Your task to perform on an android device: Open Google Chrome and open the bookmarks view Image 0: 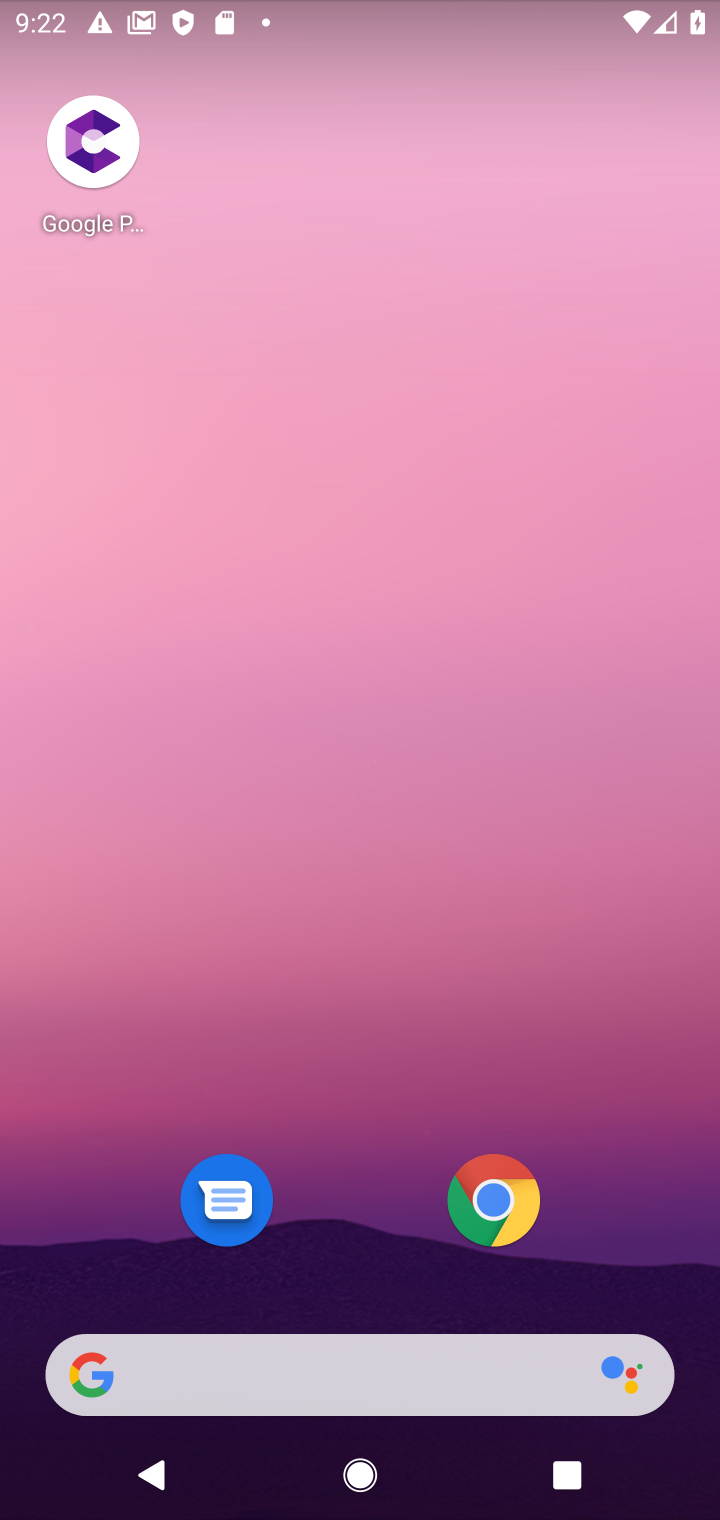
Step 0: click (460, 1171)
Your task to perform on an android device: Open Google Chrome and open the bookmarks view Image 1: 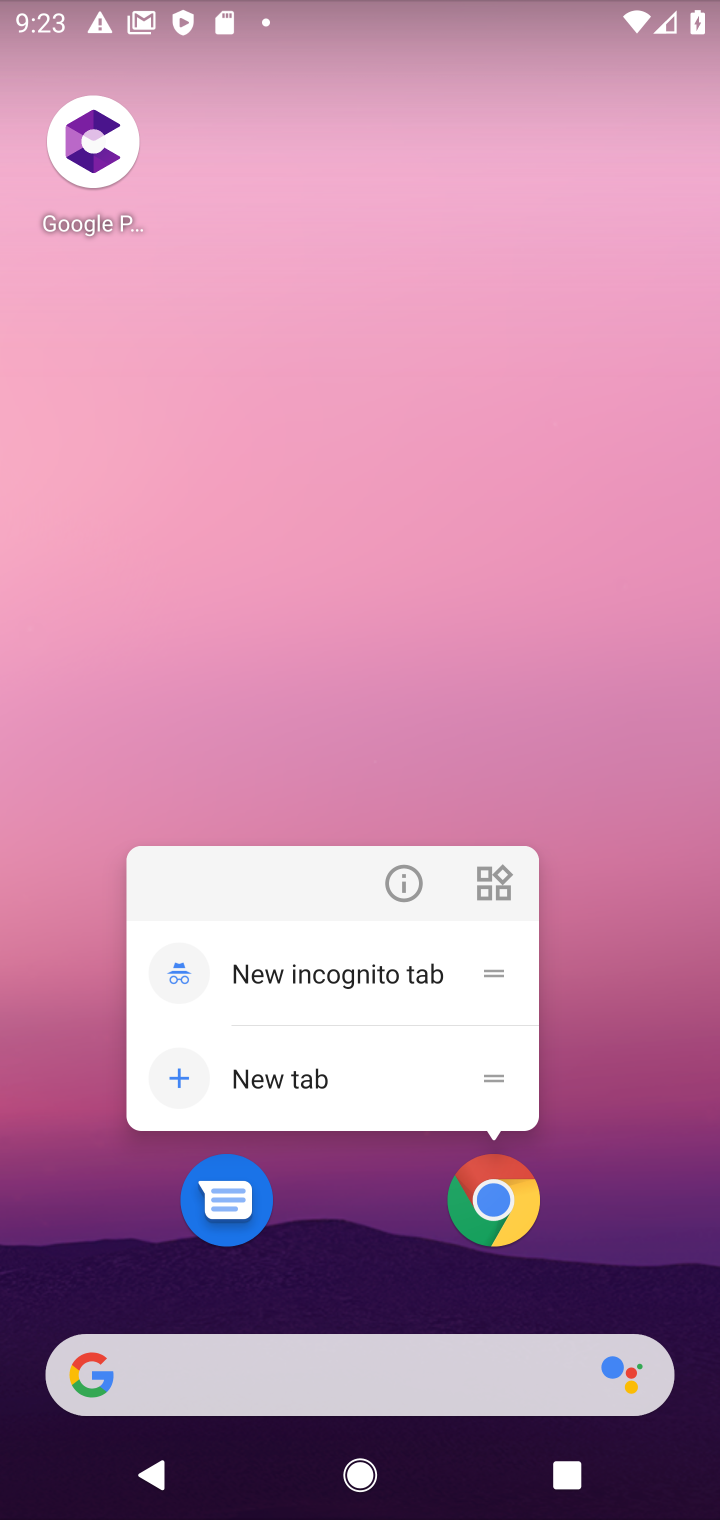
Step 1: click (489, 1209)
Your task to perform on an android device: Open Google Chrome and open the bookmarks view Image 2: 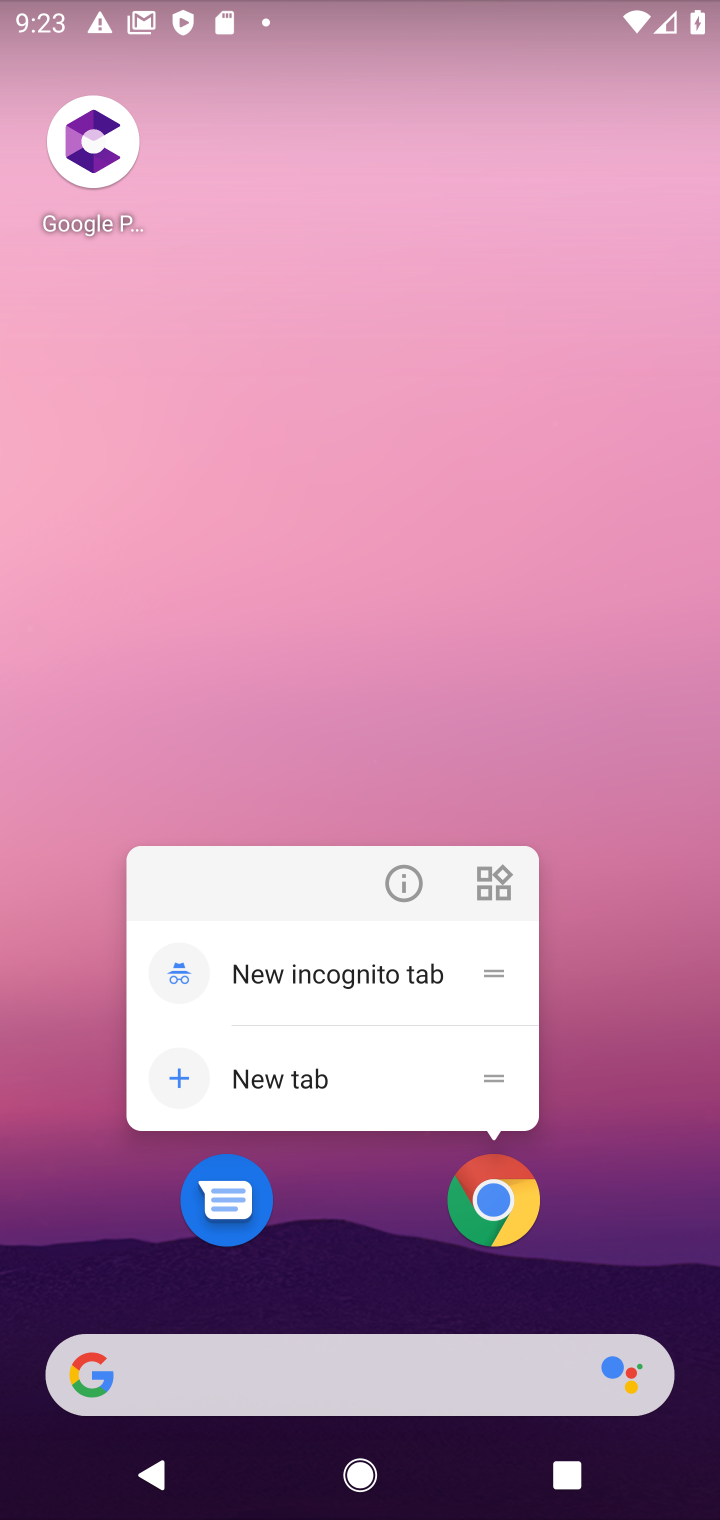
Step 2: click (485, 1192)
Your task to perform on an android device: Open Google Chrome and open the bookmarks view Image 3: 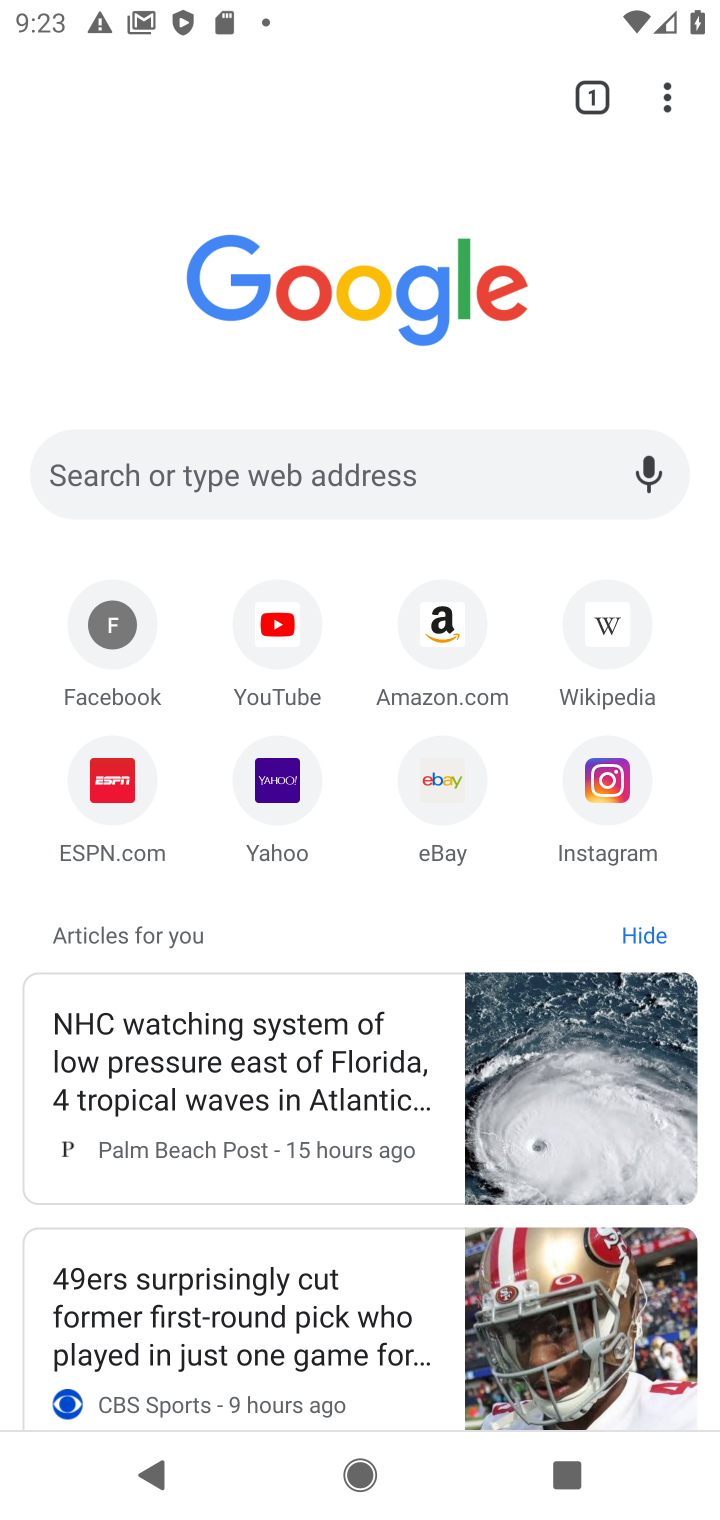
Step 3: click (679, 105)
Your task to perform on an android device: Open Google Chrome and open the bookmarks view Image 4: 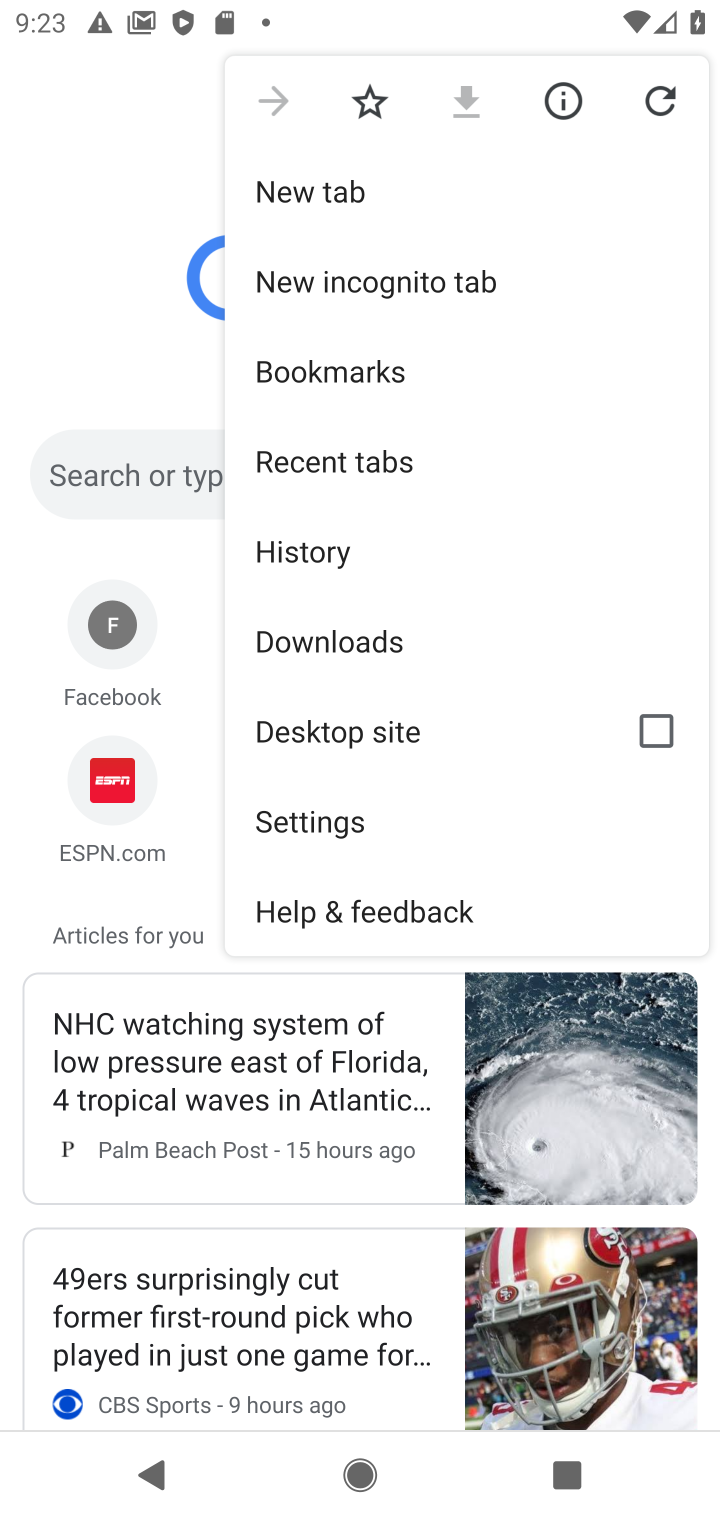
Step 4: click (320, 357)
Your task to perform on an android device: Open Google Chrome and open the bookmarks view Image 5: 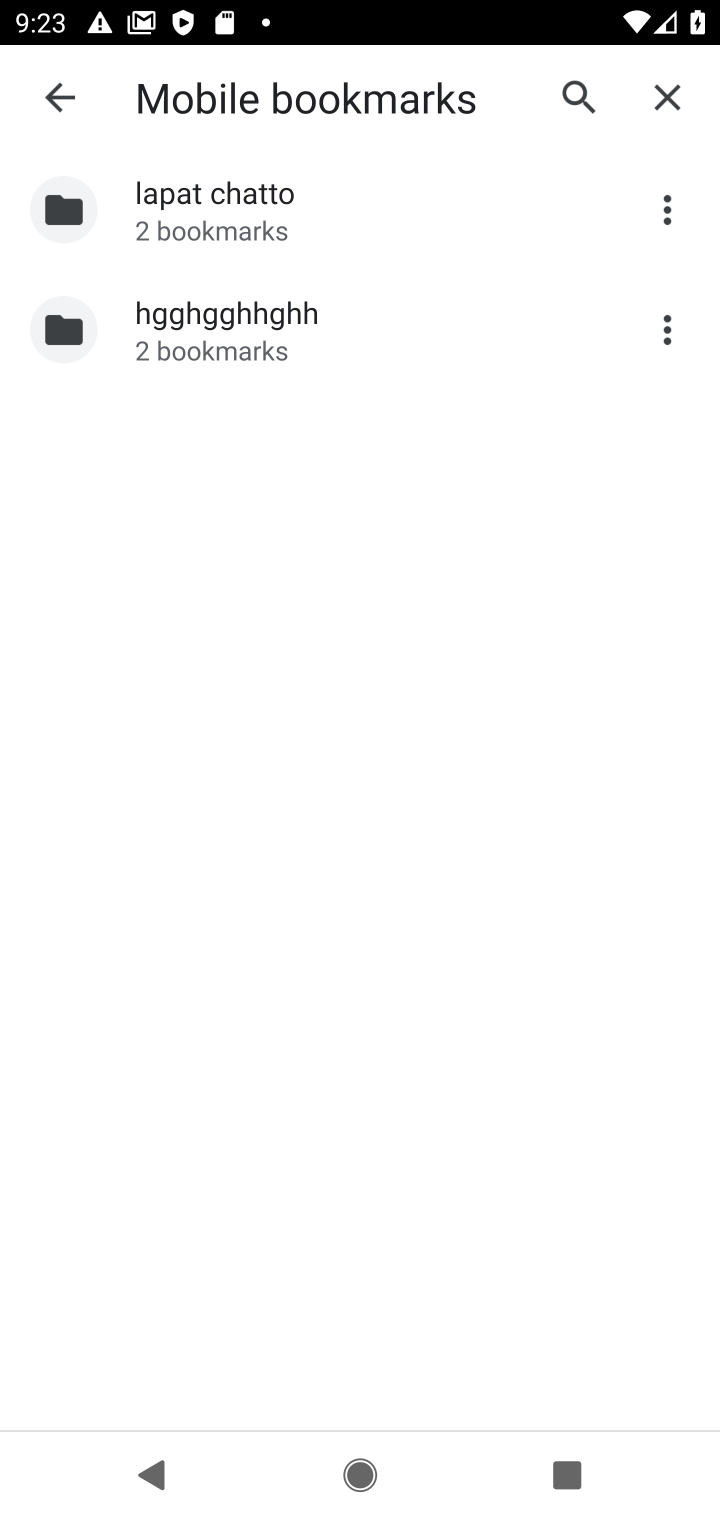
Step 5: task complete